Your task to perform on an android device: What's the weather going to be tomorrow? Image 0: 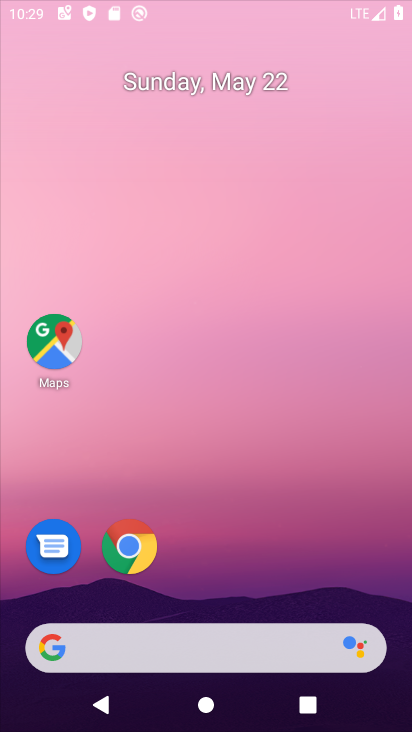
Step 0: drag from (253, 0) to (367, 500)
Your task to perform on an android device: What's the weather going to be tomorrow? Image 1: 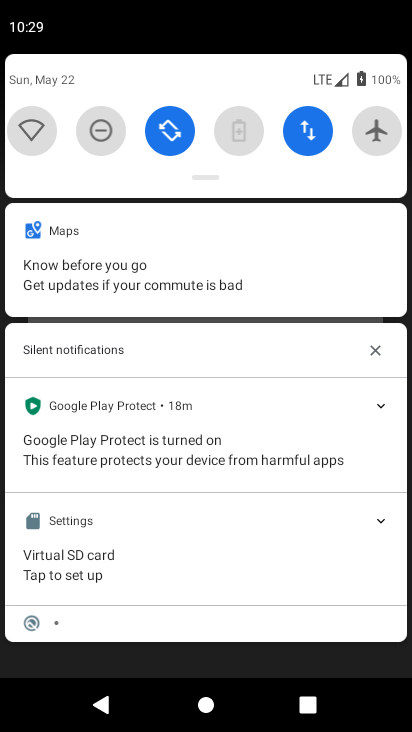
Step 1: click (247, 398)
Your task to perform on an android device: What's the weather going to be tomorrow? Image 2: 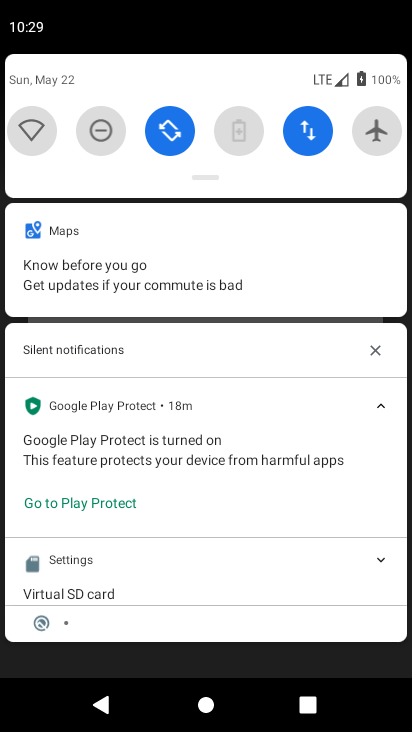
Step 2: press home button
Your task to perform on an android device: What's the weather going to be tomorrow? Image 3: 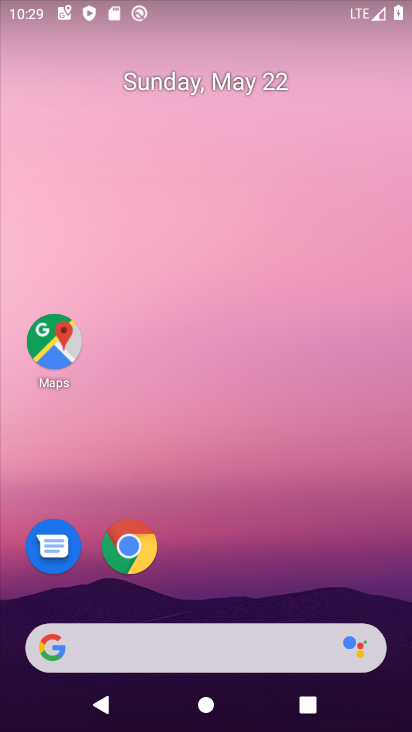
Step 3: click (175, 653)
Your task to perform on an android device: What's the weather going to be tomorrow? Image 4: 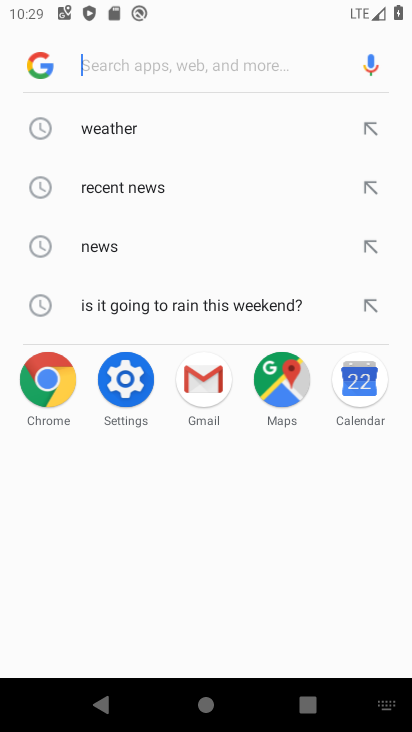
Step 4: click (117, 133)
Your task to perform on an android device: What's the weather going to be tomorrow? Image 5: 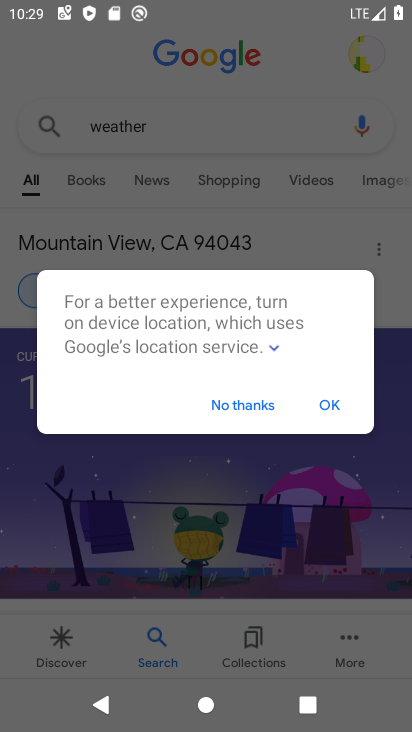
Step 5: click (335, 396)
Your task to perform on an android device: What's the weather going to be tomorrow? Image 6: 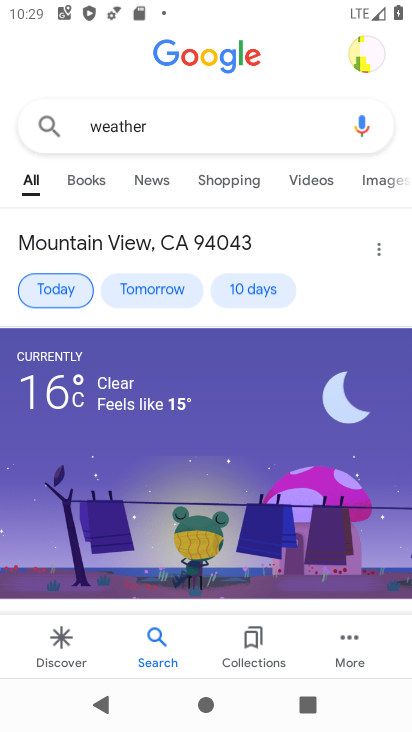
Step 6: task complete